Your task to perform on an android device: create a new album in the google photos Image 0: 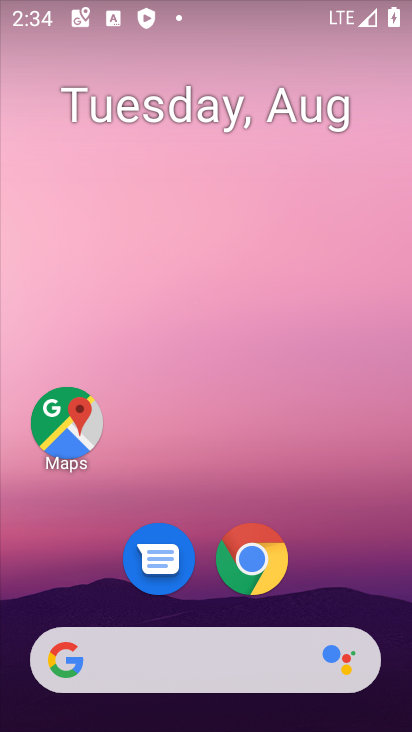
Step 0: drag from (198, 436) to (176, 83)
Your task to perform on an android device: create a new album in the google photos Image 1: 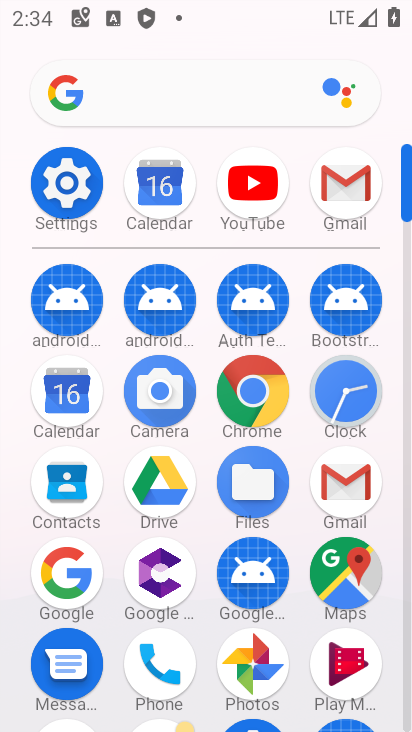
Step 1: drag from (183, 479) to (183, 218)
Your task to perform on an android device: create a new album in the google photos Image 2: 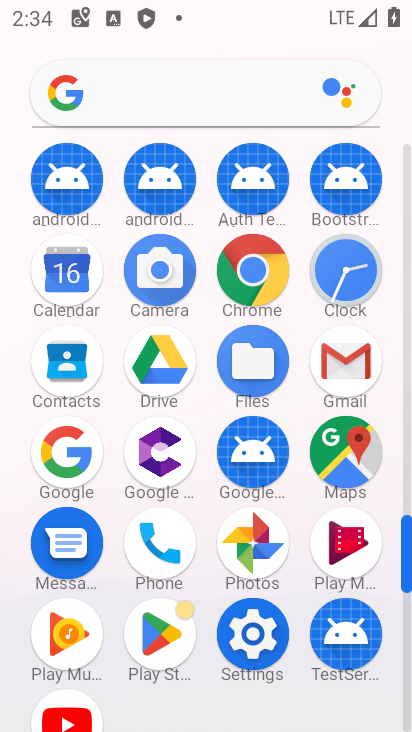
Step 2: click (277, 536)
Your task to perform on an android device: create a new album in the google photos Image 3: 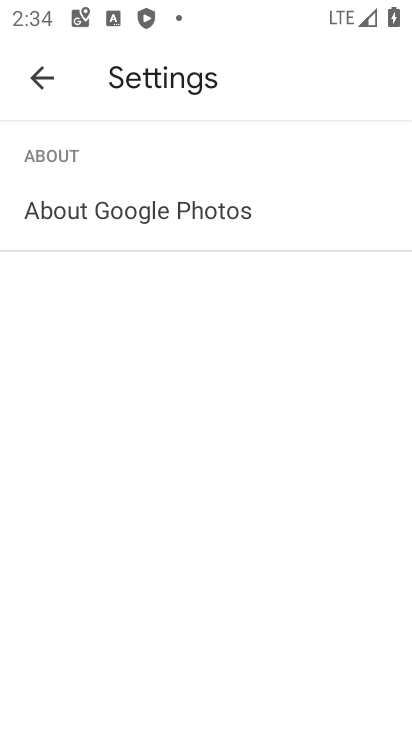
Step 3: click (49, 74)
Your task to perform on an android device: create a new album in the google photos Image 4: 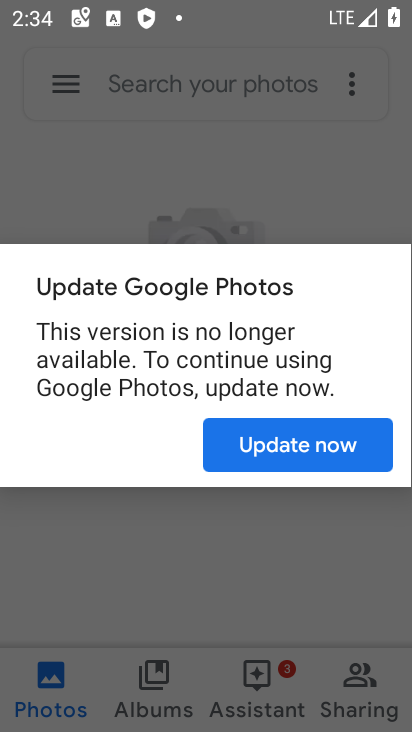
Step 4: click (231, 584)
Your task to perform on an android device: create a new album in the google photos Image 5: 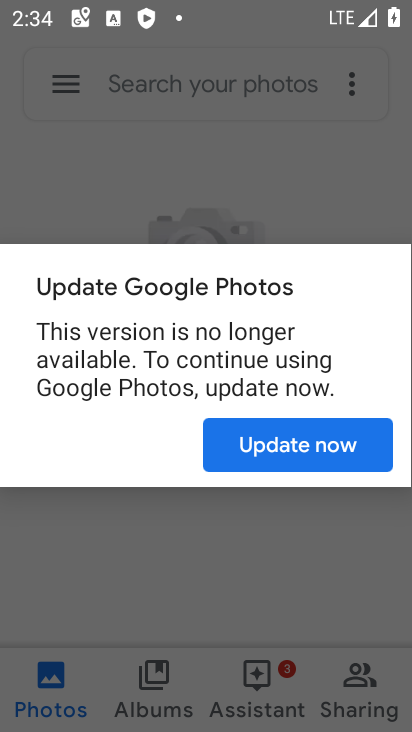
Step 5: click (279, 437)
Your task to perform on an android device: create a new album in the google photos Image 6: 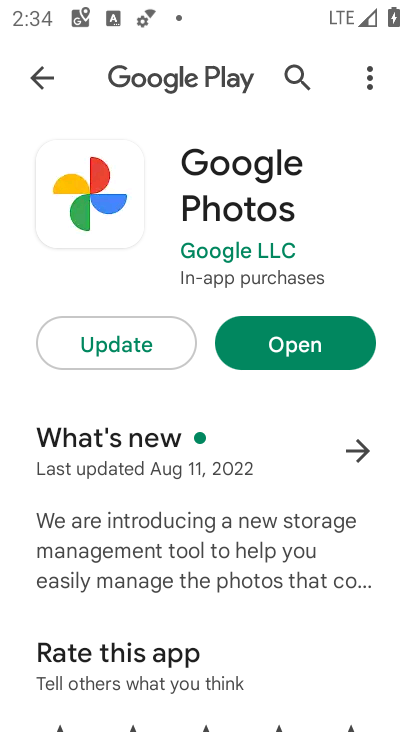
Step 6: click (287, 326)
Your task to perform on an android device: create a new album in the google photos Image 7: 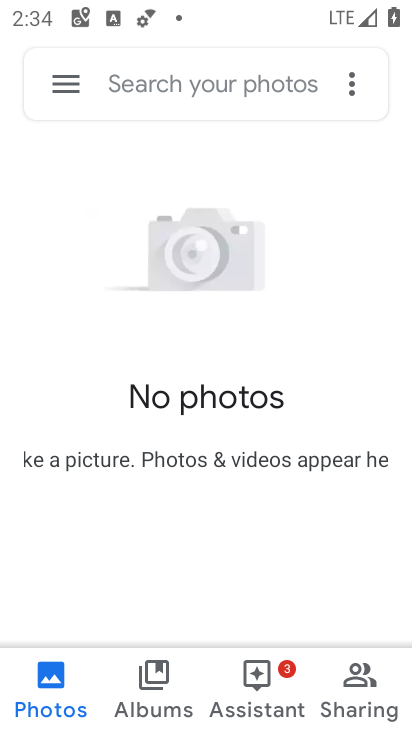
Step 7: click (348, 83)
Your task to perform on an android device: create a new album in the google photos Image 8: 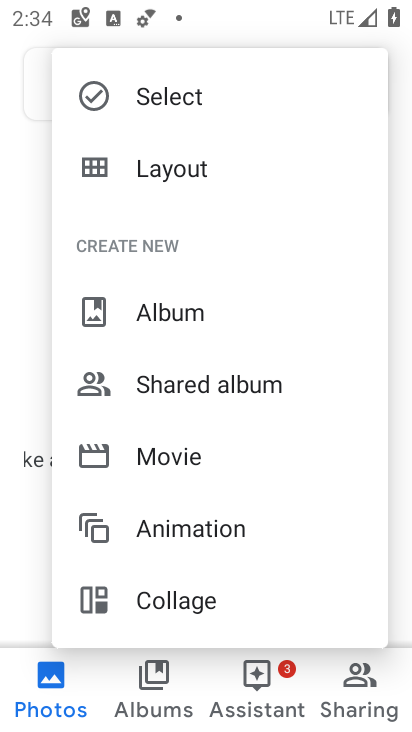
Step 8: click (145, 308)
Your task to perform on an android device: create a new album in the google photos Image 9: 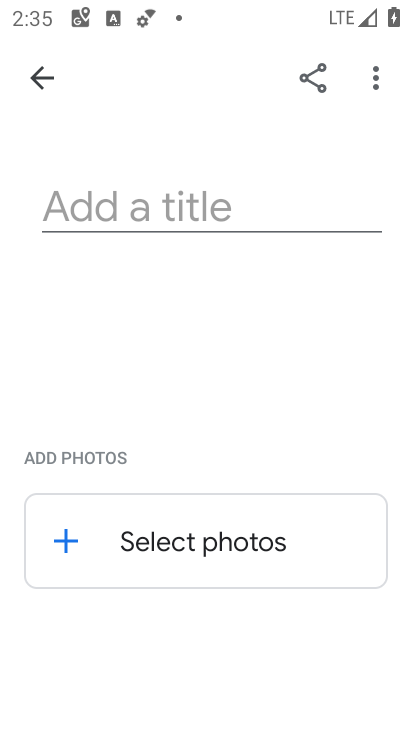
Step 9: click (215, 189)
Your task to perform on an android device: create a new album in the google photos Image 10: 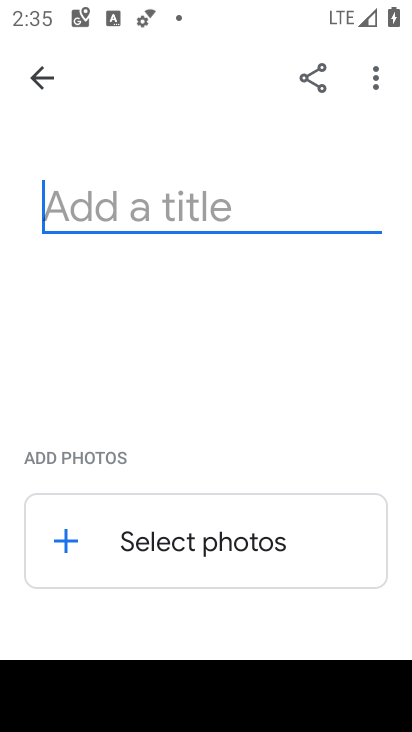
Step 10: type "gjgj"
Your task to perform on an android device: create a new album in the google photos Image 11: 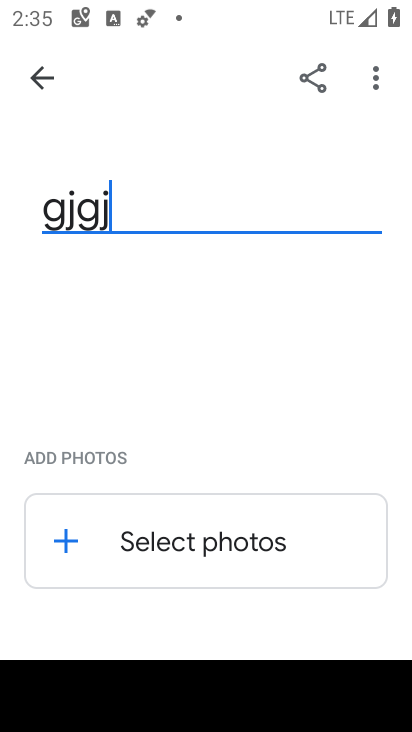
Step 11: click (368, 82)
Your task to perform on an android device: create a new album in the google photos Image 12: 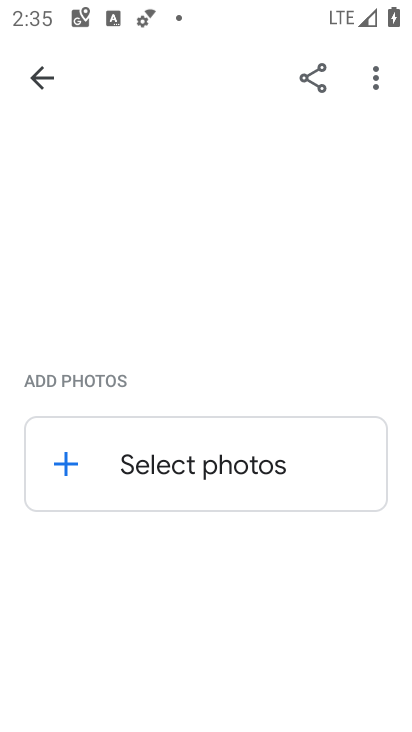
Step 12: task complete